Your task to perform on an android device: turn off data saver in the chrome app Image 0: 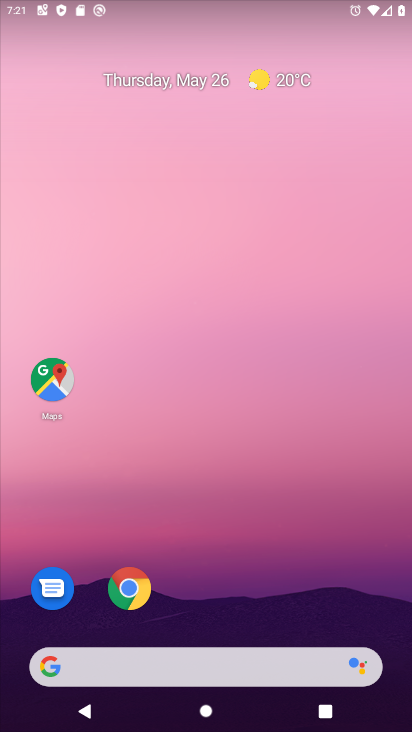
Step 0: drag from (358, 598) to (284, 22)
Your task to perform on an android device: turn off data saver in the chrome app Image 1: 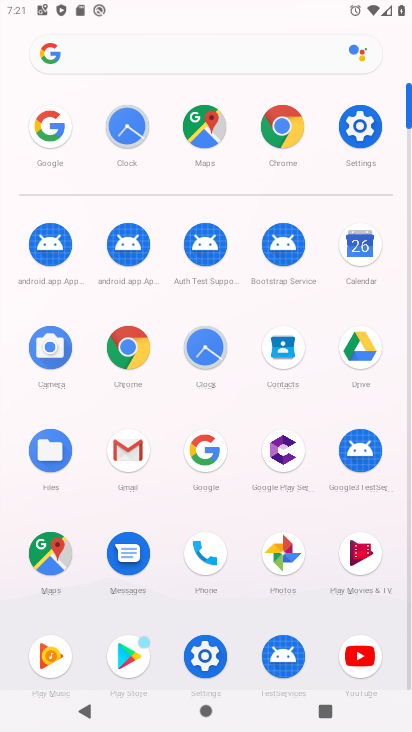
Step 1: click (279, 134)
Your task to perform on an android device: turn off data saver in the chrome app Image 2: 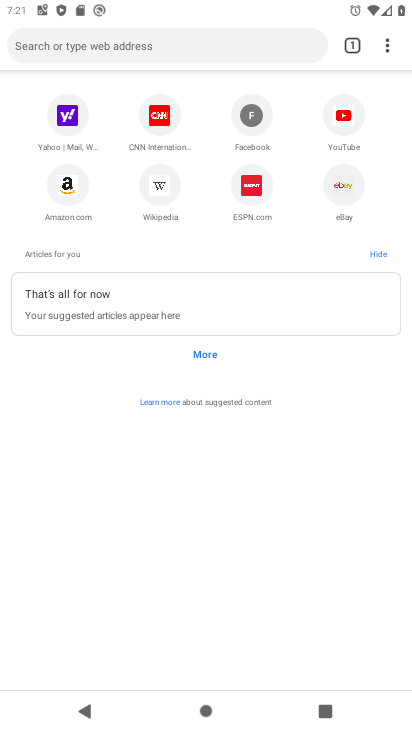
Step 2: click (383, 40)
Your task to perform on an android device: turn off data saver in the chrome app Image 3: 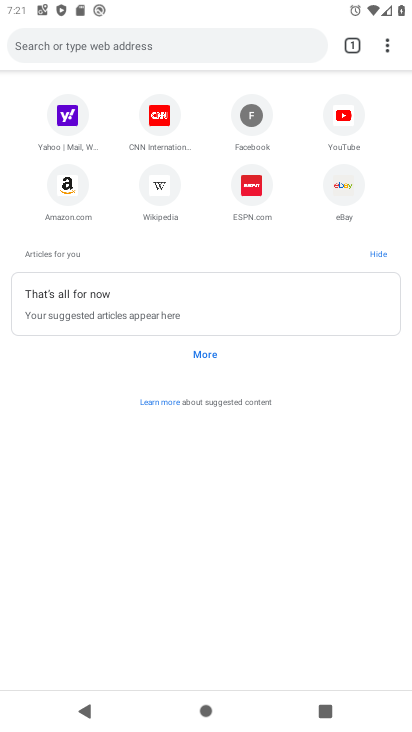
Step 3: click (390, 47)
Your task to perform on an android device: turn off data saver in the chrome app Image 4: 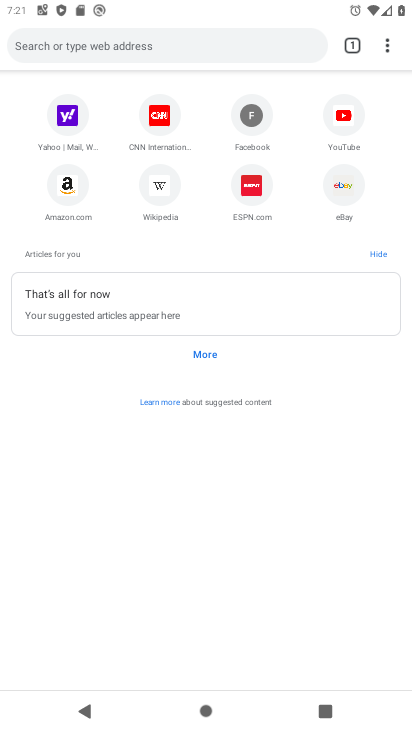
Step 4: click (388, 44)
Your task to perform on an android device: turn off data saver in the chrome app Image 5: 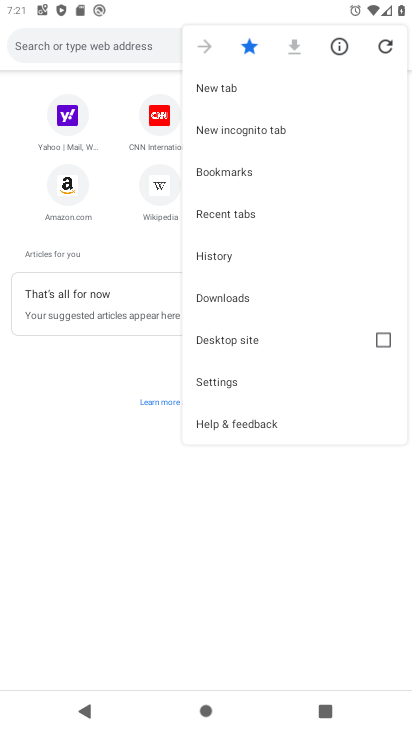
Step 5: click (205, 383)
Your task to perform on an android device: turn off data saver in the chrome app Image 6: 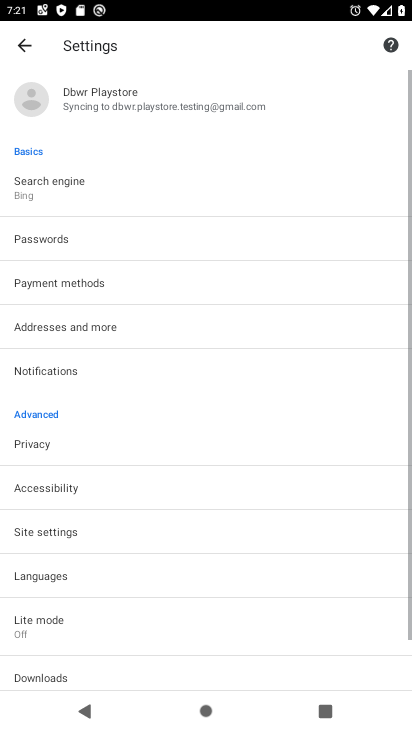
Step 6: click (22, 646)
Your task to perform on an android device: turn off data saver in the chrome app Image 7: 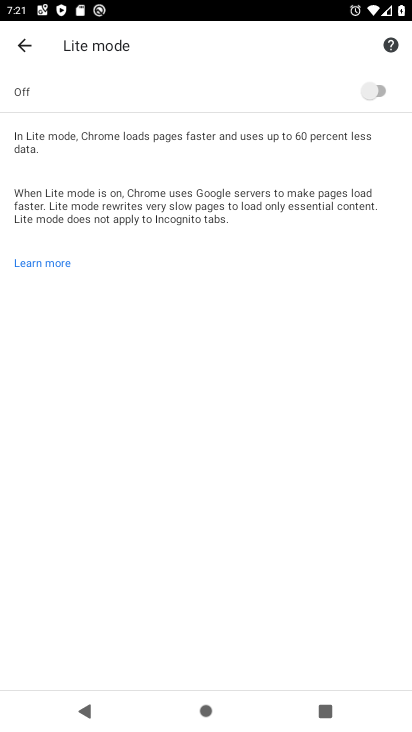
Step 7: task complete